Your task to perform on an android device: see tabs open on other devices in the chrome app Image 0: 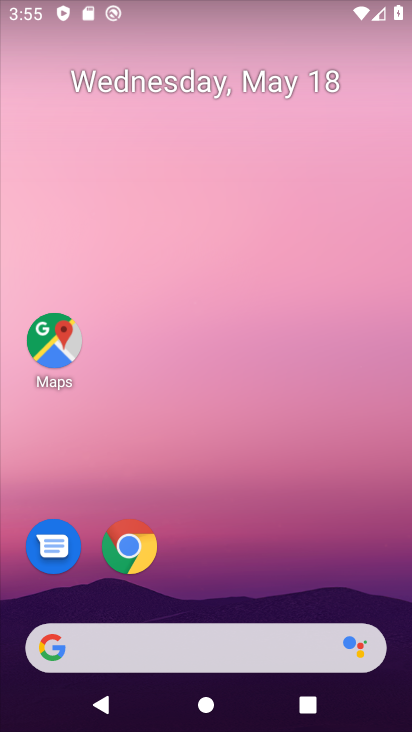
Step 0: drag from (233, 595) to (279, 113)
Your task to perform on an android device: see tabs open on other devices in the chrome app Image 1: 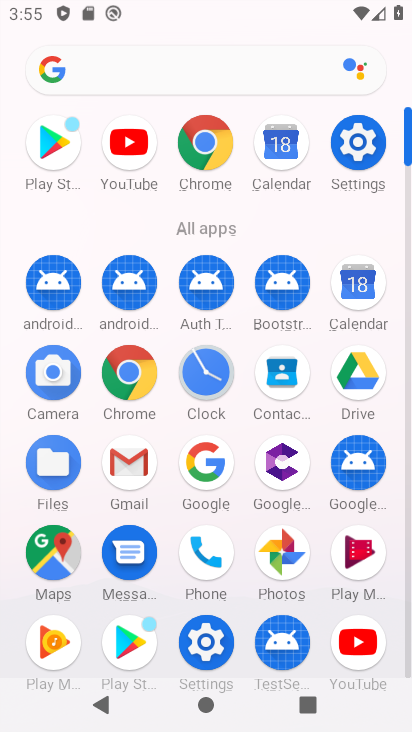
Step 1: click (145, 383)
Your task to perform on an android device: see tabs open on other devices in the chrome app Image 2: 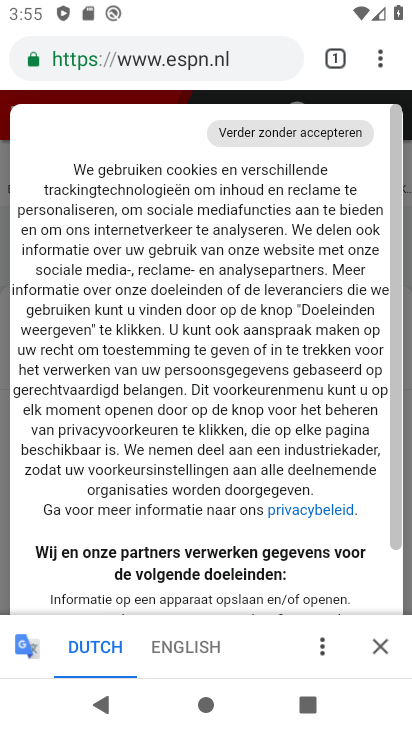
Step 2: click (383, 649)
Your task to perform on an android device: see tabs open on other devices in the chrome app Image 3: 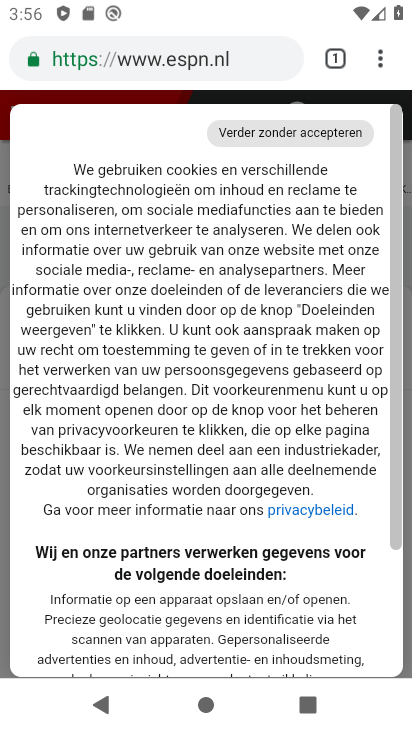
Step 3: click (376, 55)
Your task to perform on an android device: see tabs open on other devices in the chrome app Image 4: 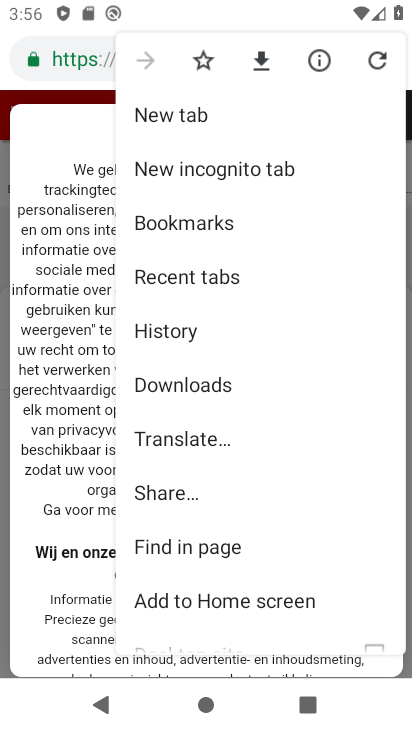
Step 4: click (228, 287)
Your task to perform on an android device: see tabs open on other devices in the chrome app Image 5: 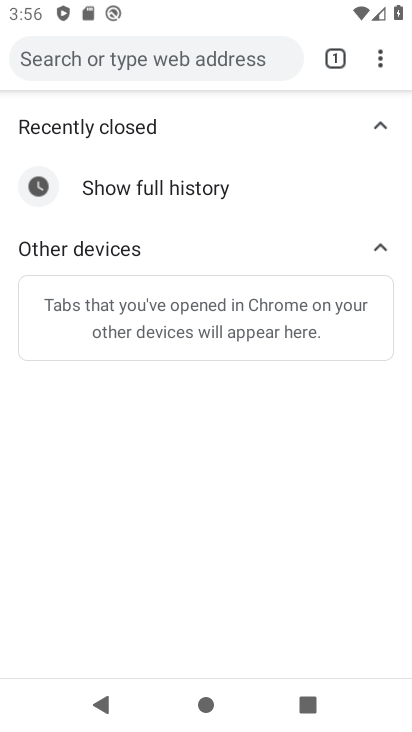
Step 5: task complete